Your task to perform on an android device: manage bookmarks in the chrome app Image 0: 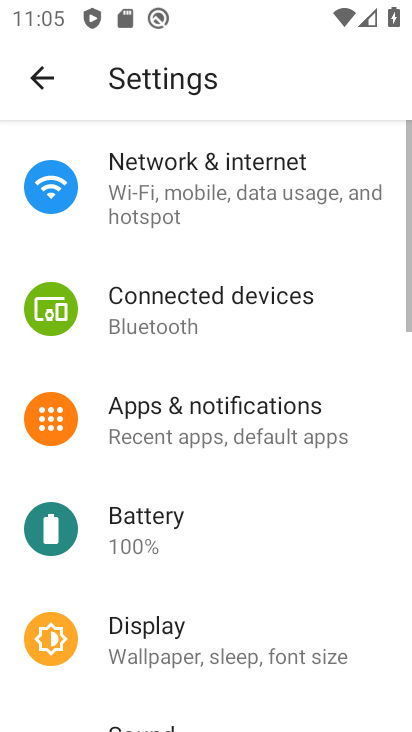
Step 0: press home button
Your task to perform on an android device: manage bookmarks in the chrome app Image 1: 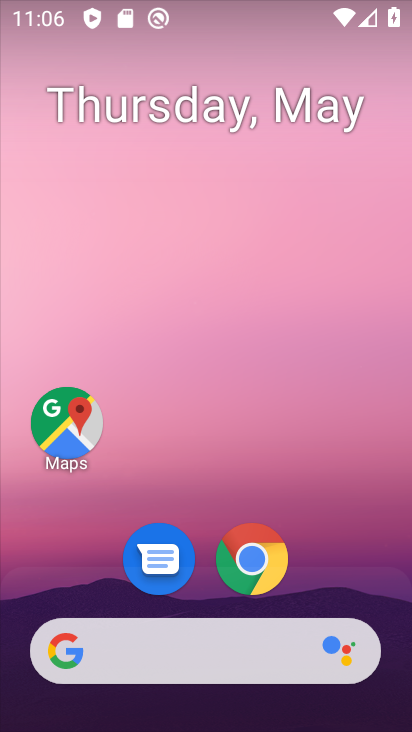
Step 1: click (254, 553)
Your task to perform on an android device: manage bookmarks in the chrome app Image 2: 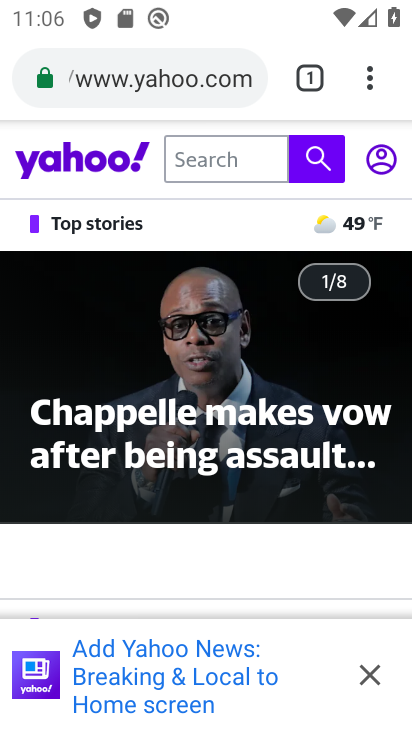
Step 2: click (369, 84)
Your task to perform on an android device: manage bookmarks in the chrome app Image 3: 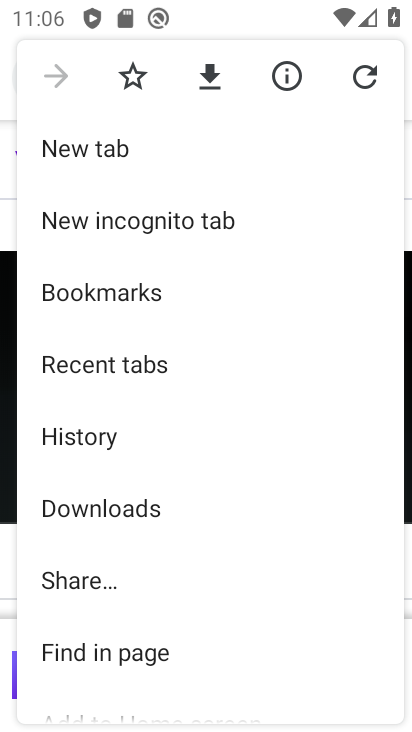
Step 3: click (112, 291)
Your task to perform on an android device: manage bookmarks in the chrome app Image 4: 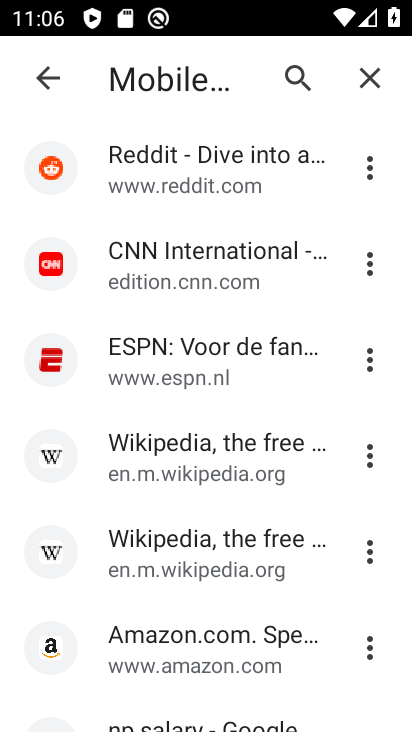
Step 4: click (371, 167)
Your task to perform on an android device: manage bookmarks in the chrome app Image 5: 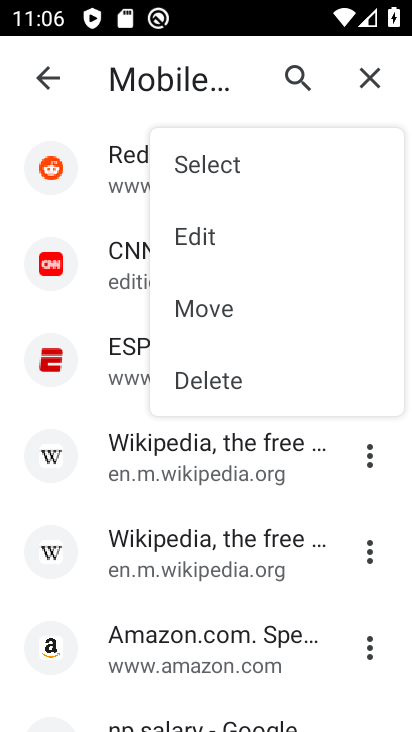
Step 5: click (214, 232)
Your task to perform on an android device: manage bookmarks in the chrome app Image 6: 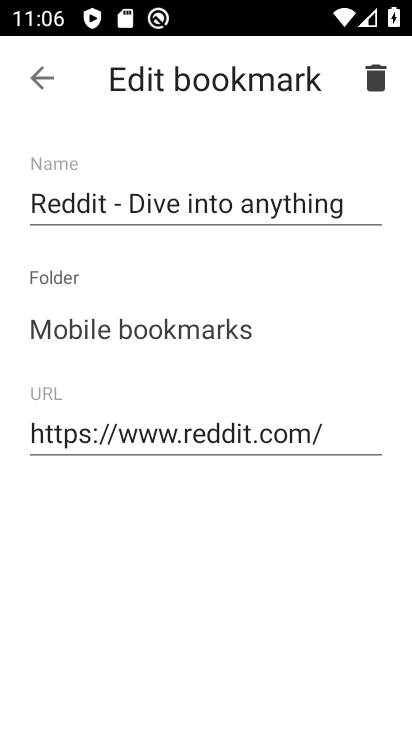
Step 6: click (204, 201)
Your task to perform on an android device: manage bookmarks in the chrome app Image 7: 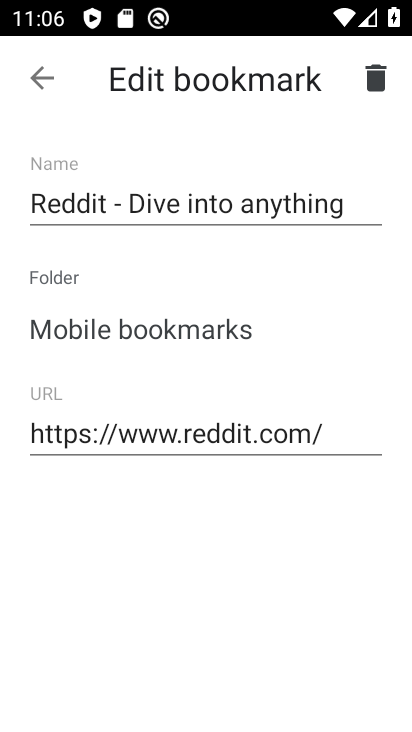
Step 7: click (204, 201)
Your task to perform on an android device: manage bookmarks in the chrome app Image 8: 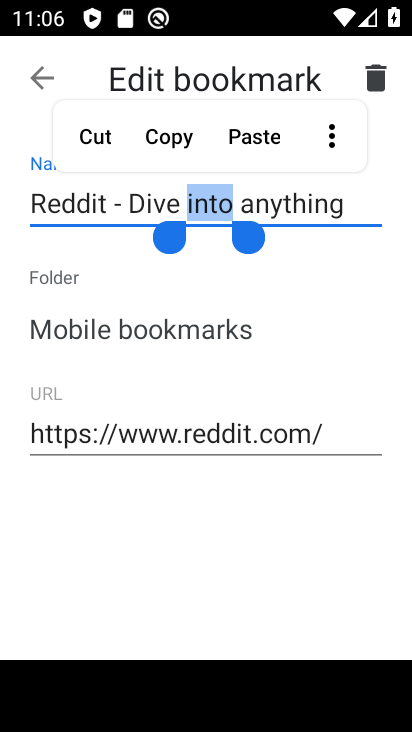
Step 8: drag from (169, 241) to (0, 211)
Your task to perform on an android device: manage bookmarks in the chrome app Image 9: 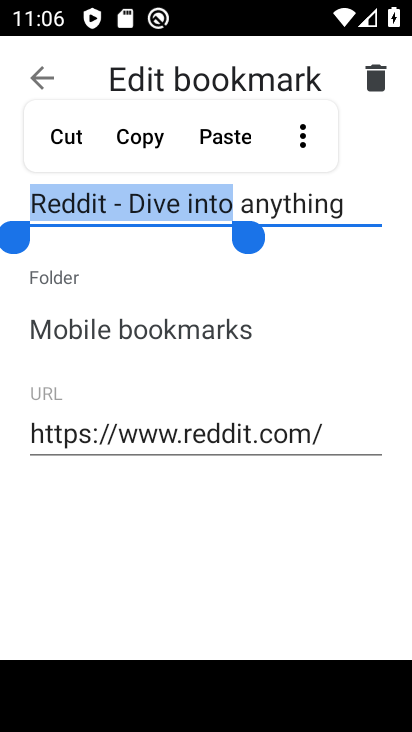
Step 9: drag from (247, 235) to (390, 216)
Your task to perform on an android device: manage bookmarks in the chrome app Image 10: 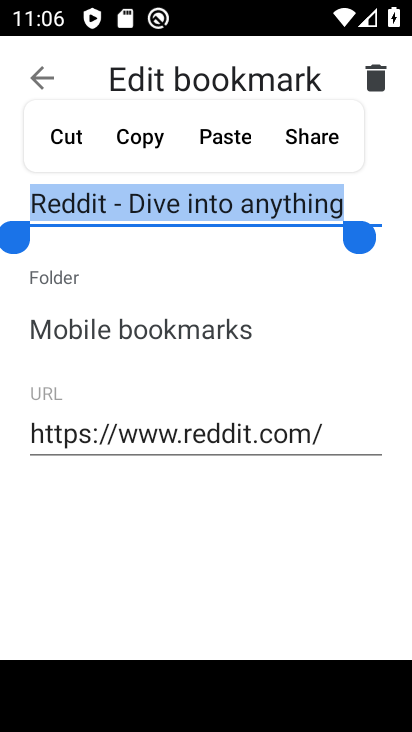
Step 10: click (47, 134)
Your task to perform on an android device: manage bookmarks in the chrome app Image 11: 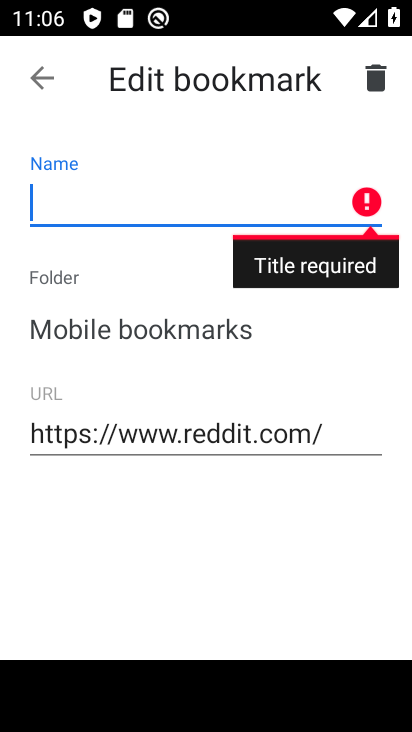
Step 11: type "nnnnn"
Your task to perform on an android device: manage bookmarks in the chrome app Image 12: 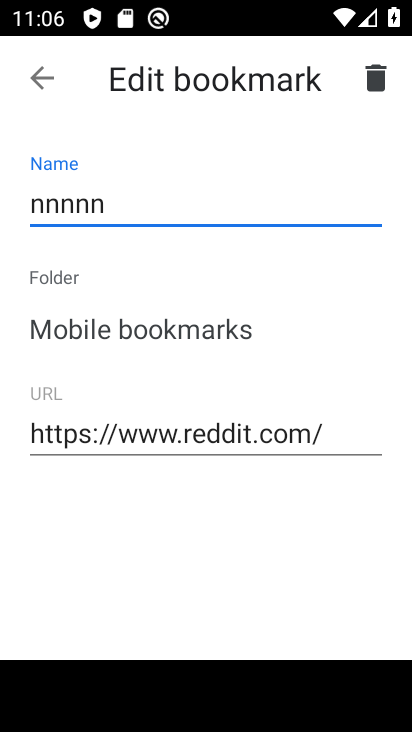
Step 12: click (43, 80)
Your task to perform on an android device: manage bookmarks in the chrome app Image 13: 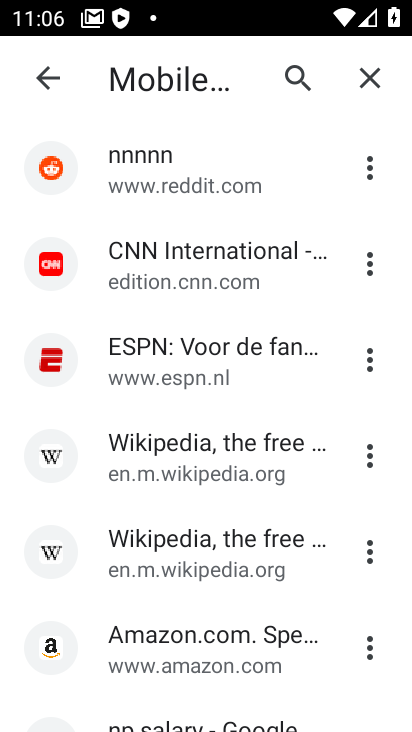
Step 13: task complete